Your task to perform on an android device: turn on javascript in the chrome app Image 0: 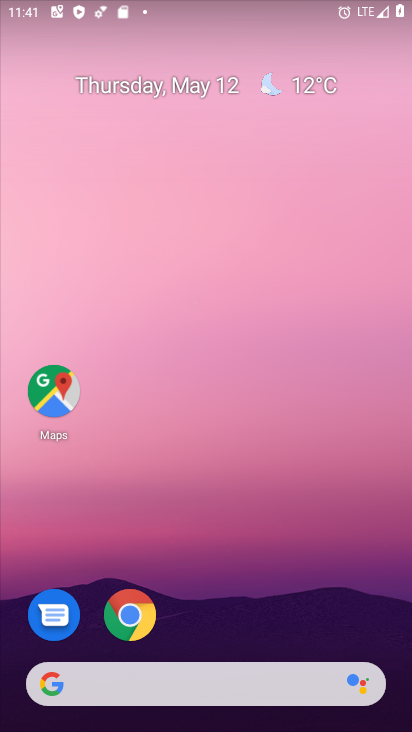
Step 0: click (143, 610)
Your task to perform on an android device: turn on javascript in the chrome app Image 1: 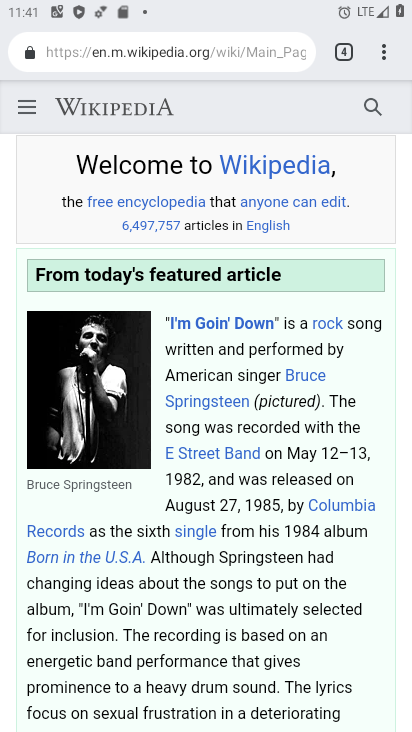
Step 1: click (388, 46)
Your task to perform on an android device: turn on javascript in the chrome app Image 2: 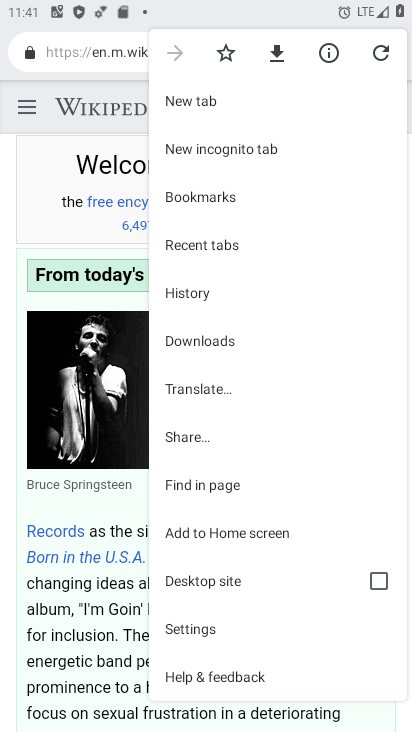
Step 2: click (237, 632)
Your task to perform on an android device: turn on javascript in the chrome app Image 3: 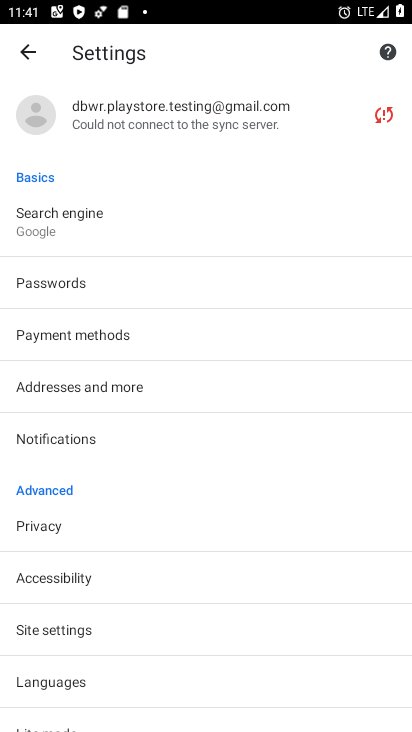
Step 3: click (265, 614)
Your task to perform on an android device: turn on javascript in the chrome app Image 4: 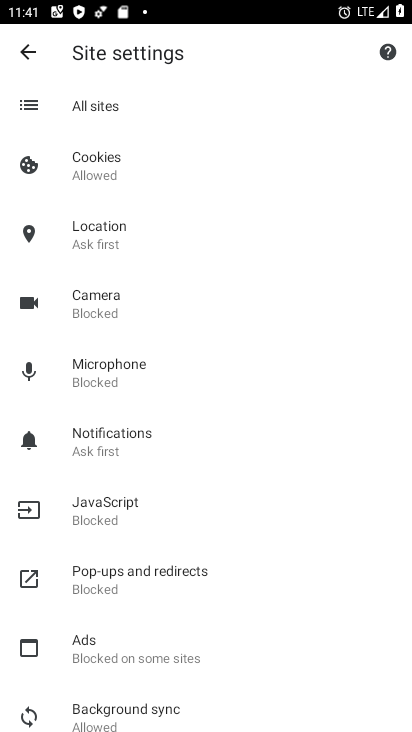
Step 4: click (183, 506)
Your task to perform on an android device: turn on javascript in the chrome app Image 5: 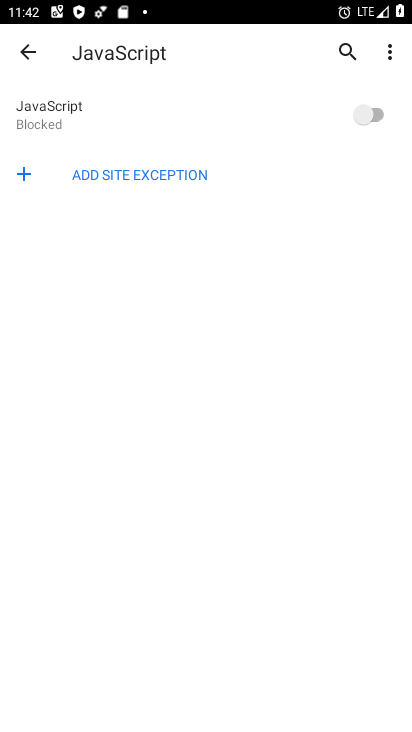
Step 5: click (373, 109)
Your task to perform on an android device: turn on javascript in the chrome app Image 6: 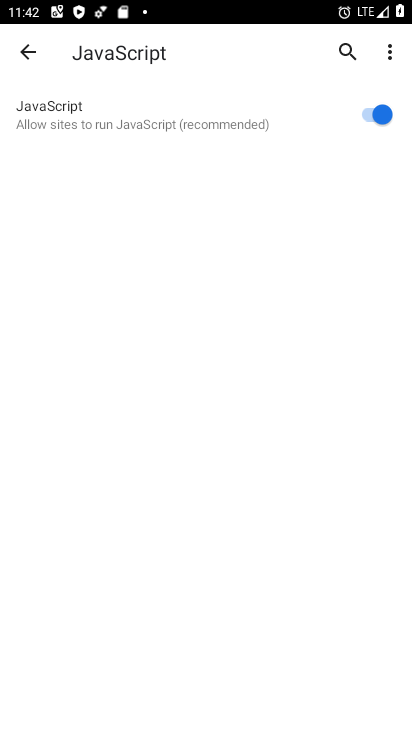
Step 6: task complete